Your task to perform on an android device: open the mobile data screen to see how much data has been used Image 0: 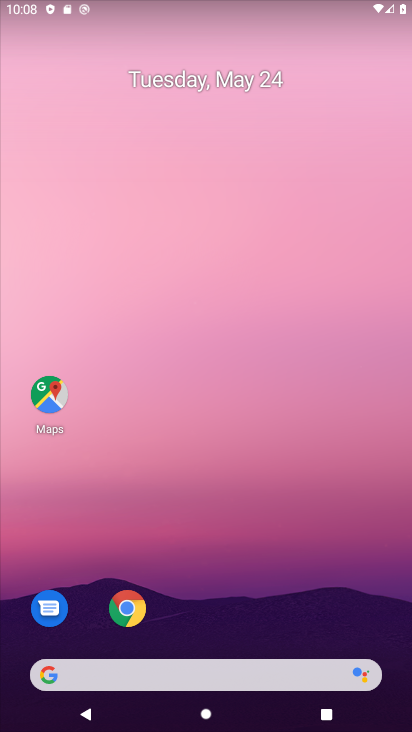
Step 0: drag from (367, 622) to (296, 67)
Your task to perform on an android device: open the mobile data screen to see how much data has been used Image 1: 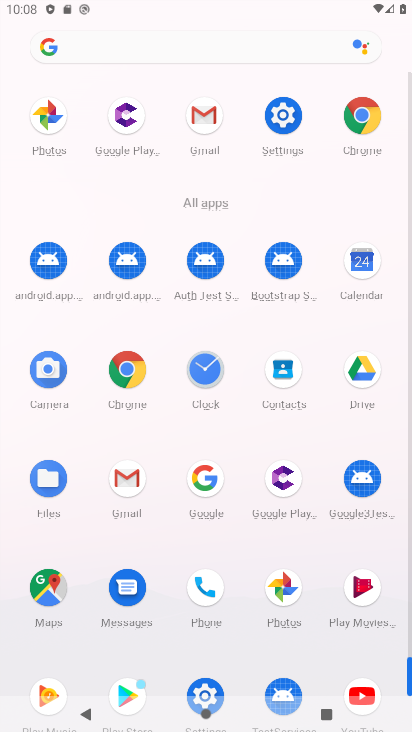
Step 1: click (207, 687)
Your task to perform on an android device: open the mobile data screen to see how much data has been used Image 2: 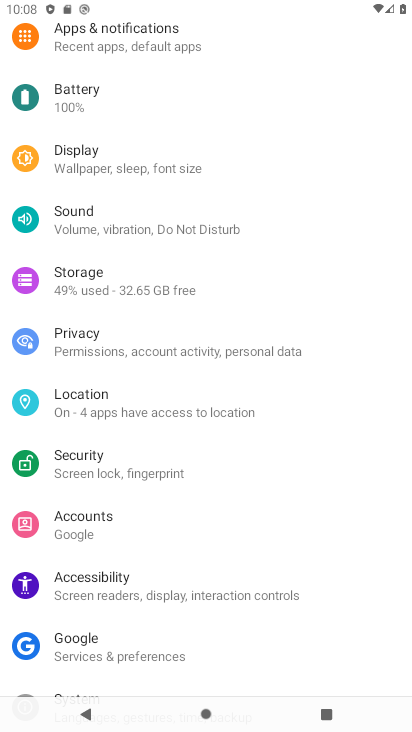
Step 2: click (207, 687)
Your task to perform on an android device: open the mobile data screen to see how much data has been used Image 3: 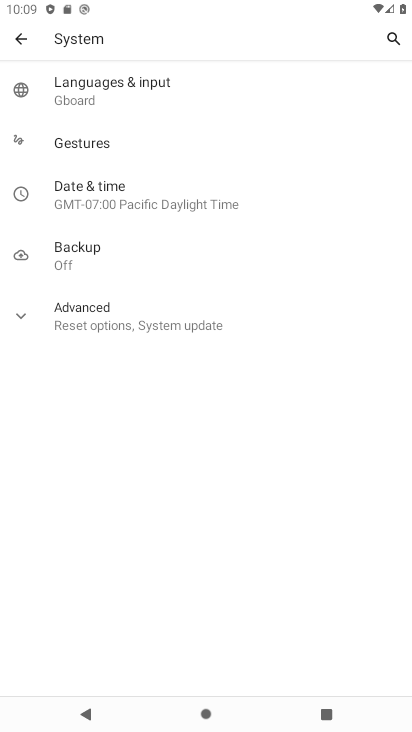
Step 3: press home button
Your task to perform on an android device: open the mobile data screen to see how much data has been used Image 4: 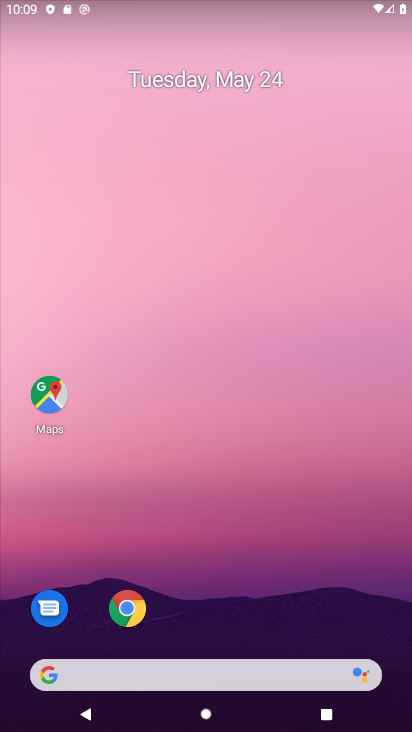
Step 4: drag from (378, 596) to (317, 71)
Your task to perform on an android device: open the mobile data screen to see how much data has been used Image 5: 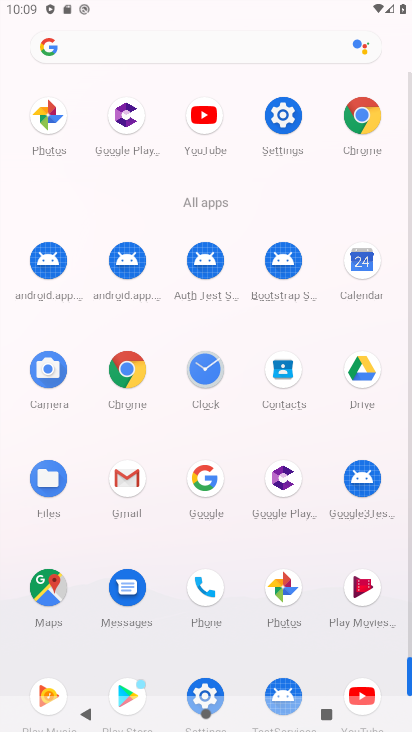
Step 5: click (201, 686)
Your task to perform on an android device: open the mobile data screen to see how much data has been used Image 6: 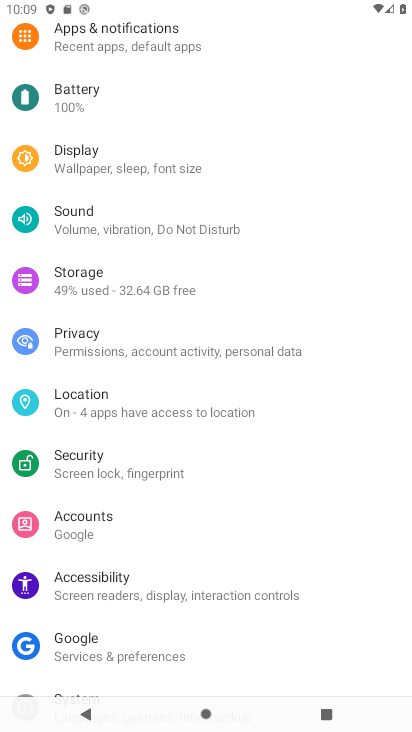
Step 6: drag from (333, 100) to (335, 398)
Your task to perform on an android device: open the mobile data screen to see how much data has been used Image 7: 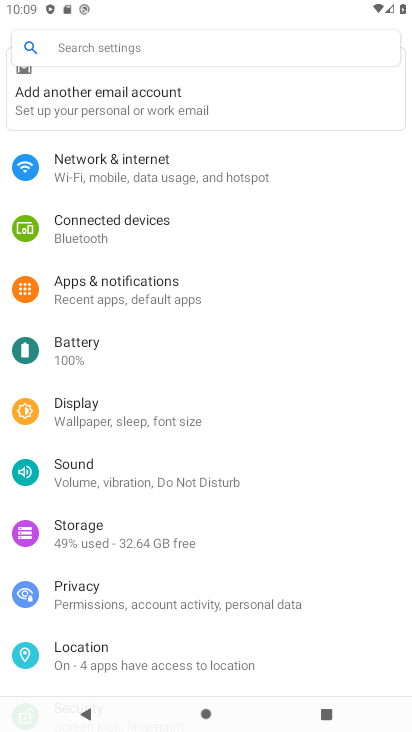
Step 7: click (104, 160)
Your task to perform on an android device: open the mobile data screen to see how much data has been used Image 8: 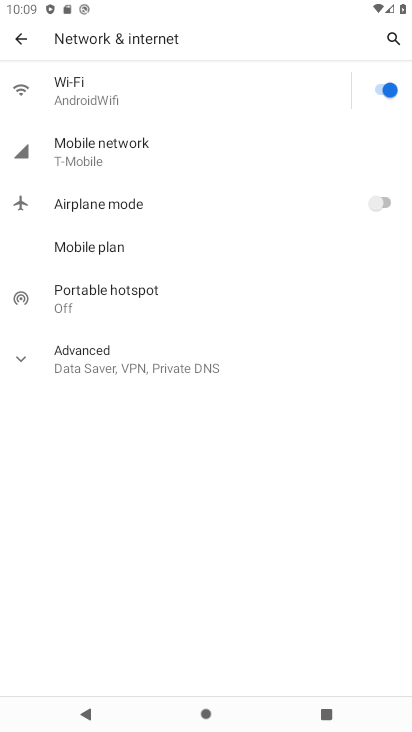
Step 8: click (84, 144)
Your task to perform on an android device: open the mobile data screen to see how much data has been used Image 9: 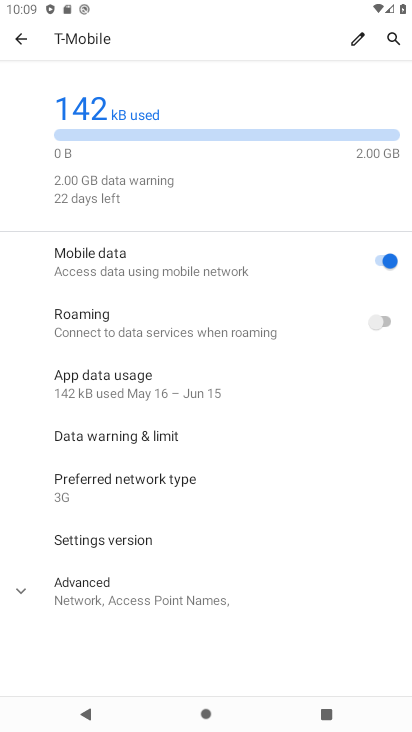
Step 9: task complete